Your task to perform on an android device: turn off location history Image 0: 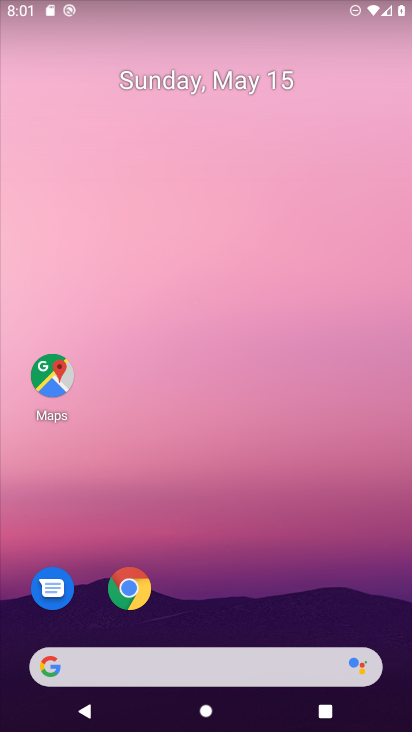
Step 0: drag from (211, 622) to (221, 0)
Your task to perform on an android device: turn off location history Image 1: 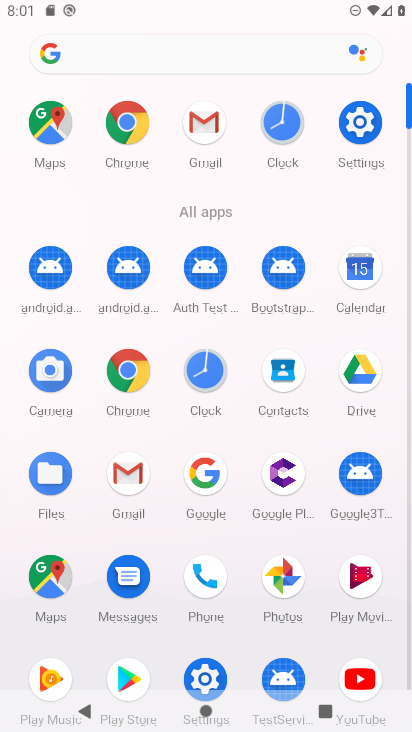
Step 1: click (354, 114)
Your task to perform on an android device: turn off location history Image 2: 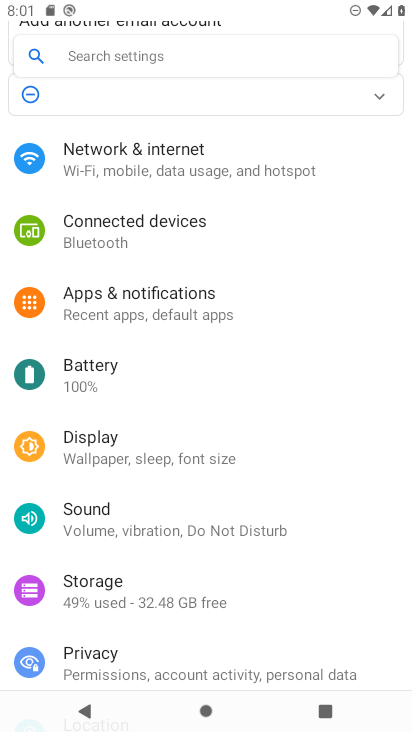
Step 2: drag from (167, 634) to (150, 68)
Your task to perform on an android device: turn off location history Image 3: 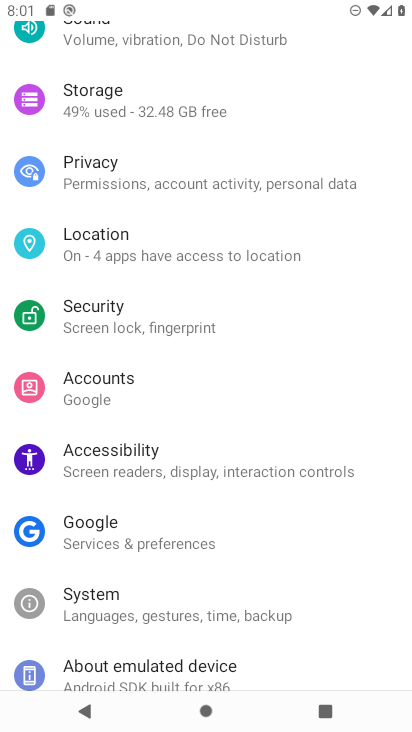
Step 3: click (142, 230)
Your task to perform on an android device: turn off location history Image 4: 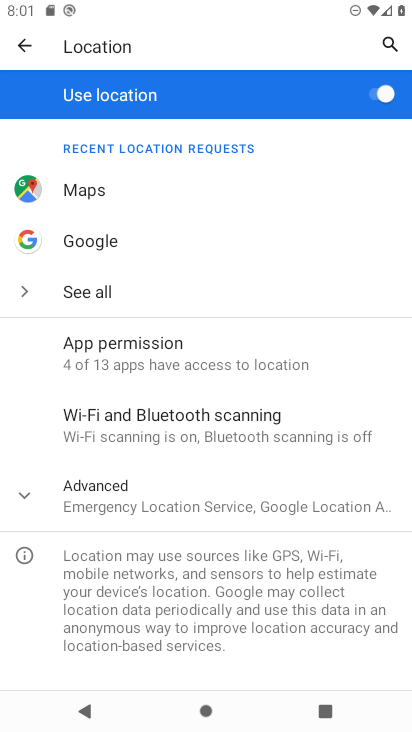
Step 4: click (23, 486)
Your task to perform on an android device: turn off location history Image 5: 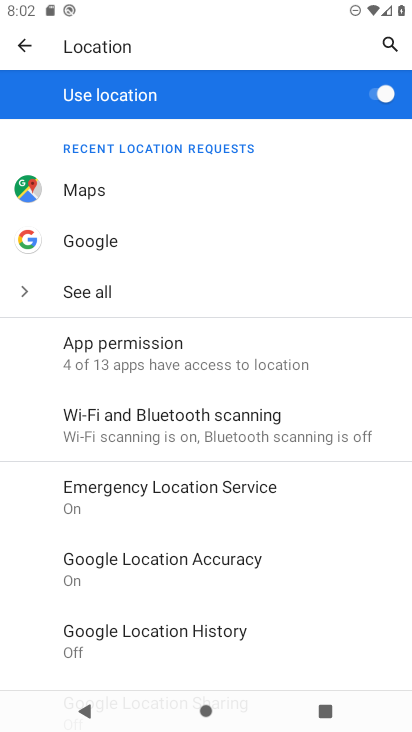
Step 5: click (258, 632)
Your task to perform on an android device: turn off location history Image 6: 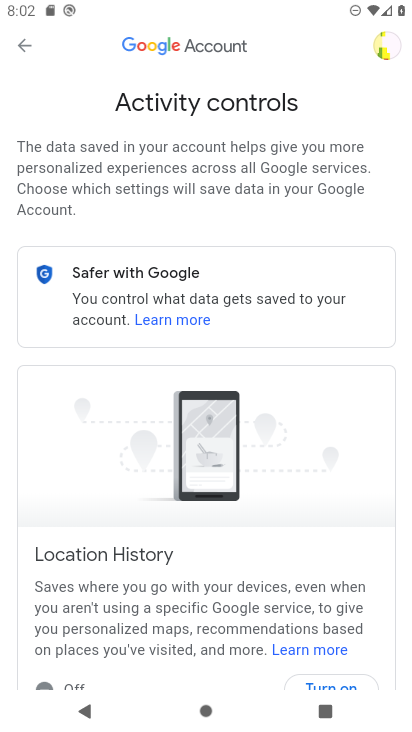
Step 6: drag from (226, 632) to (236, 267)
Your task to perform on an android device: turn off location history Image 7: 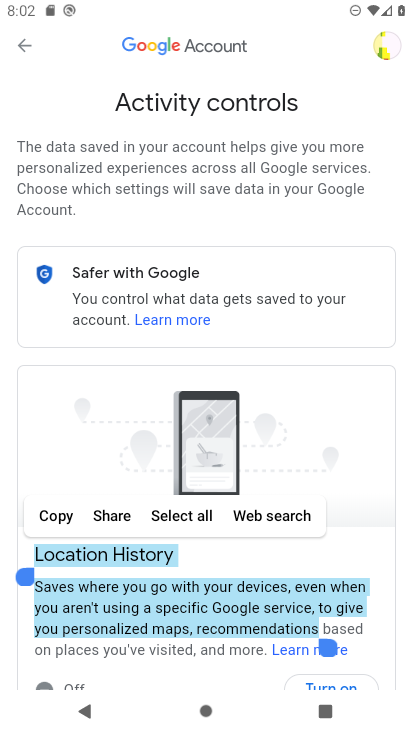
Step 7: drag from (143, 493) to (156, 112)
Your task to perform on an android device: turn off location history Image 8: 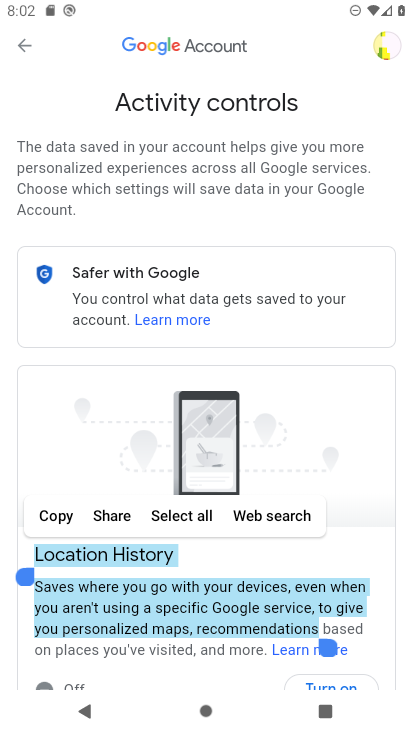
Step 8: click (278, 222)
Your task to perform on an android device: turn off location history Image 9: 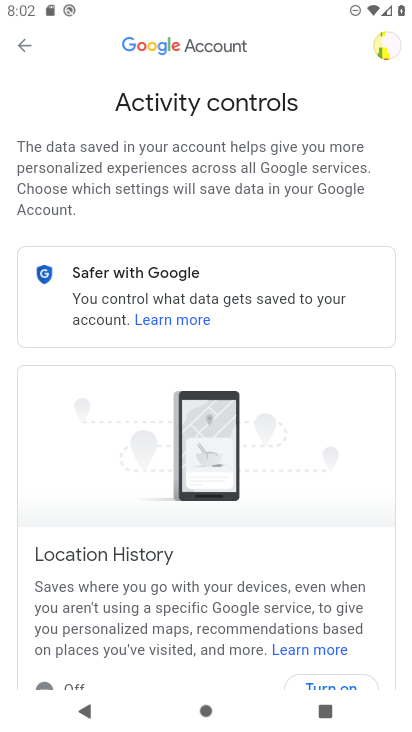
Step 9: click (188, 645)
Your task to perform on an android device: turn off location history Image 10: 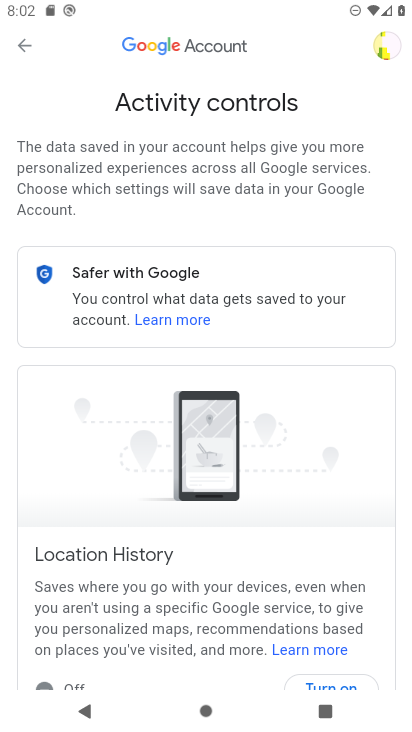
Step 10: task complete